Your task to perform on an android device: Go to settings Image 0: 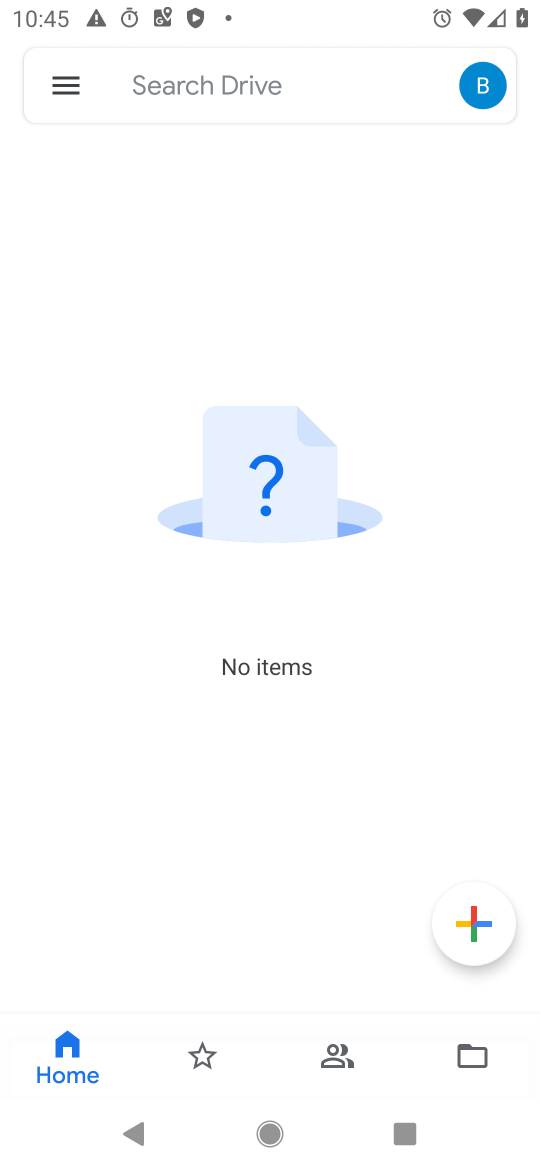
Step 0: press home button
Your task to perform on an android device: Go to settings Image 1: 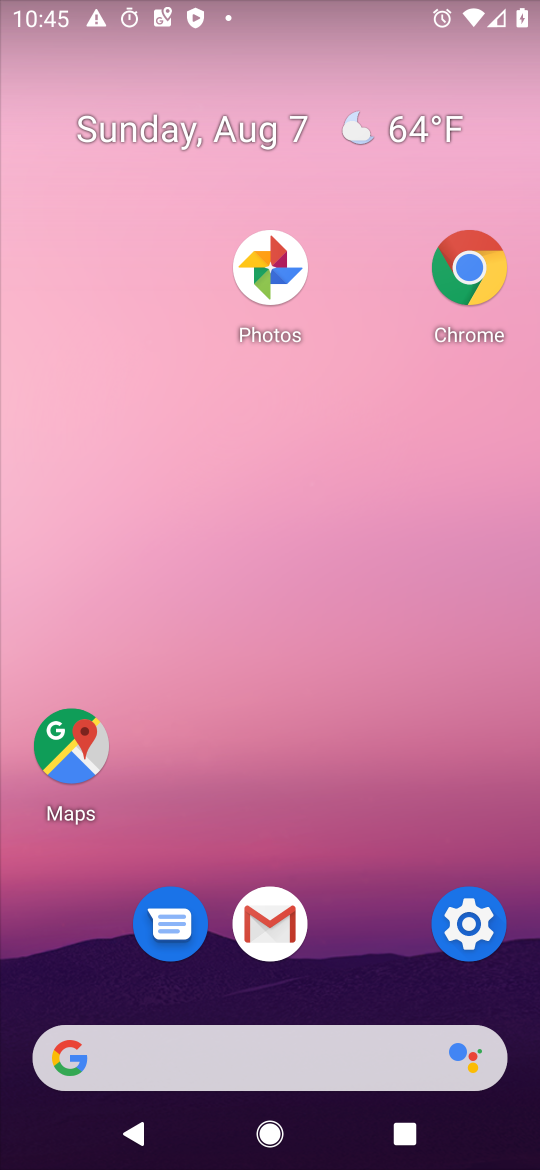
Step 1: click (468, 938)
Your task to perform on an android device: Go to settings Image 2: 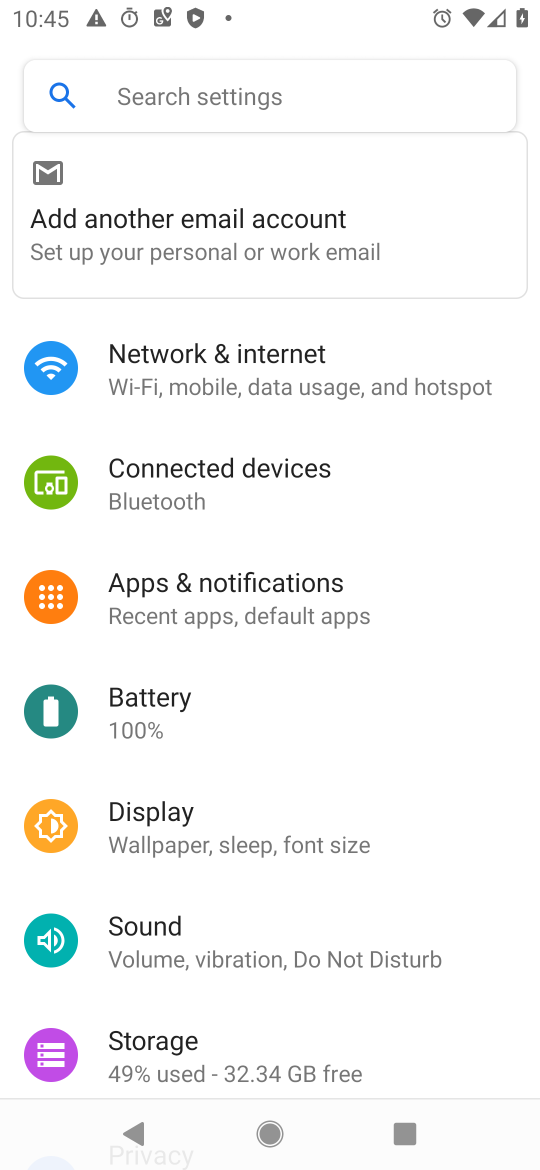
Step 2: click (213, 97)
Your task to perform on an android device: Go to settings Image 3: 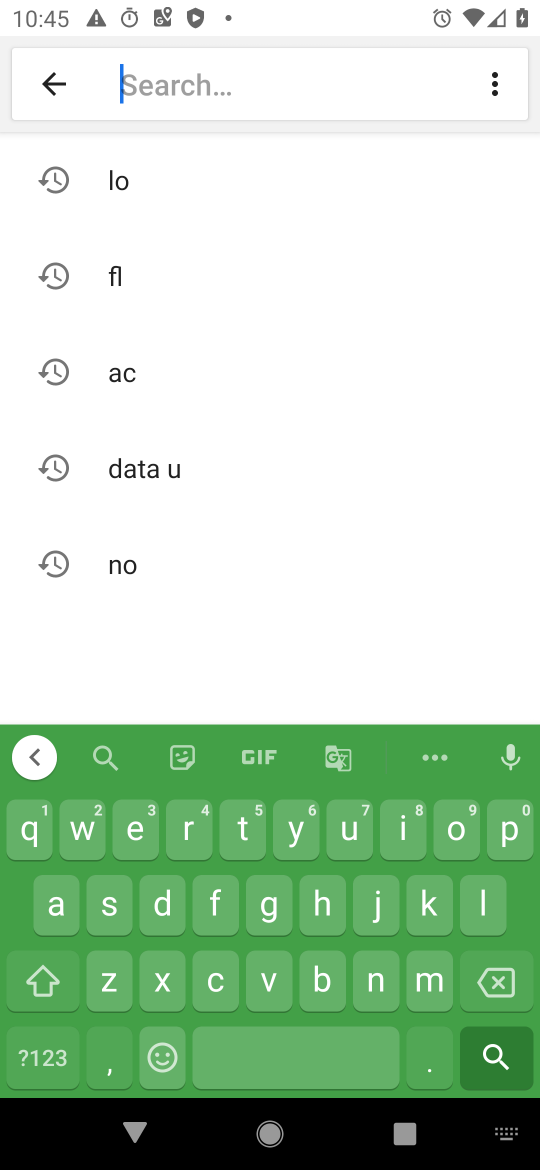
Step 3: click (41, 87)
Your task to perform on an android device: Go to settings Image 4: 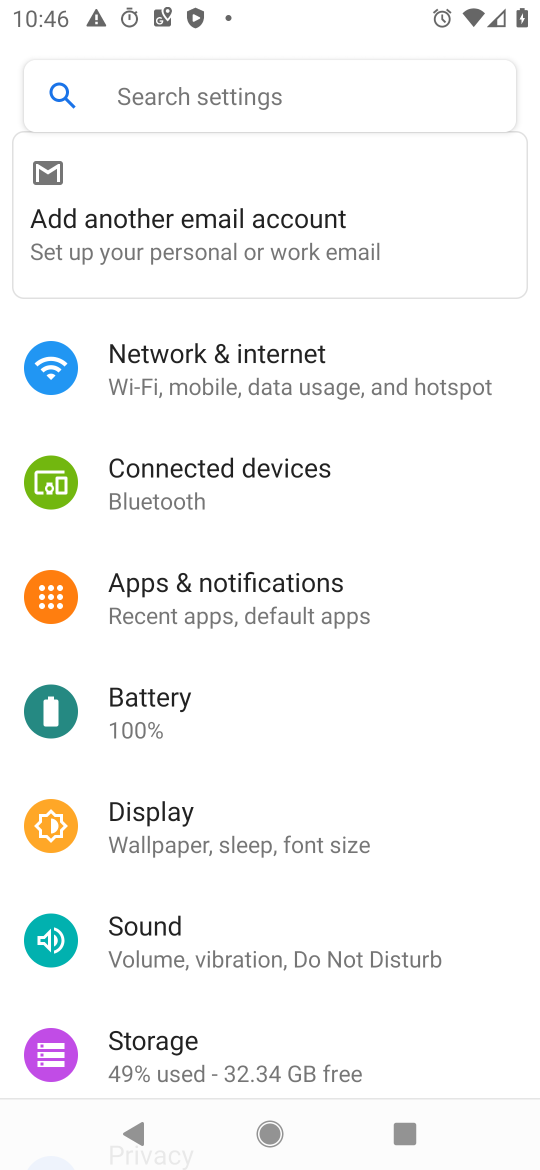
Step 4: task complete